Your task to perform on an android device: Find coffee shops on Maps Image 0: 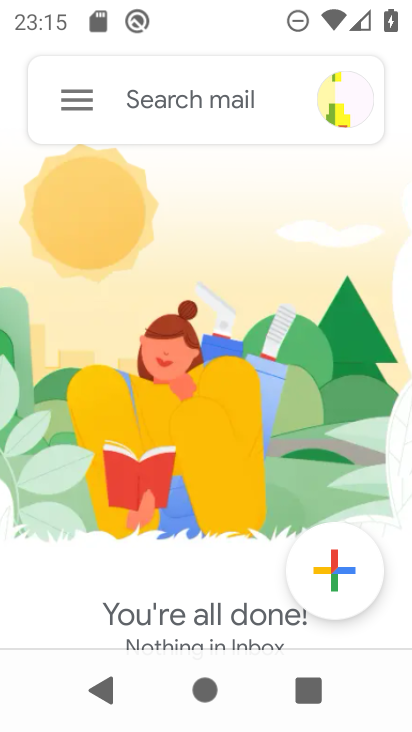
Step 0: click (73, 93)
Your task to perform on an android device: Find coffee shops on Maps Image 1: 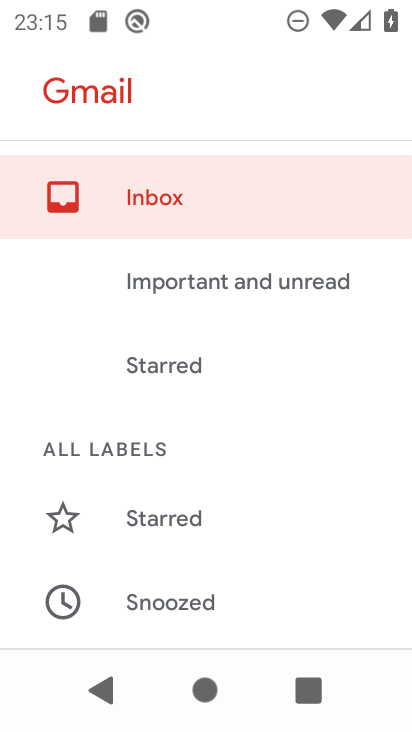
Step 1: press home button
Your task to perform on an android device: Find coffee shops on Maps Image 2: 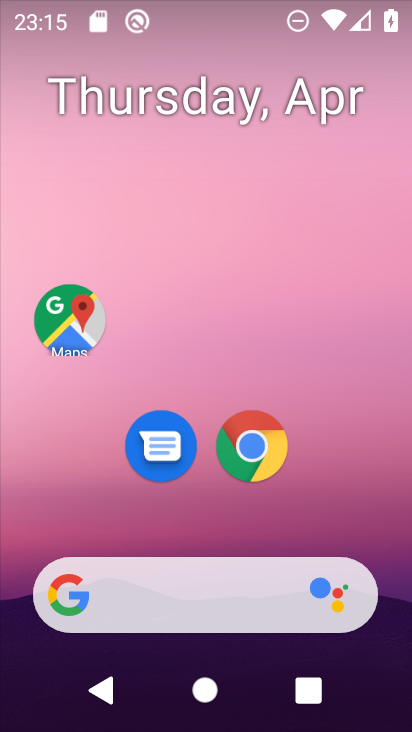
Step 2: click (62, 308)
Your task to perform on an android device: Find coffee shops on Maps Image 3: 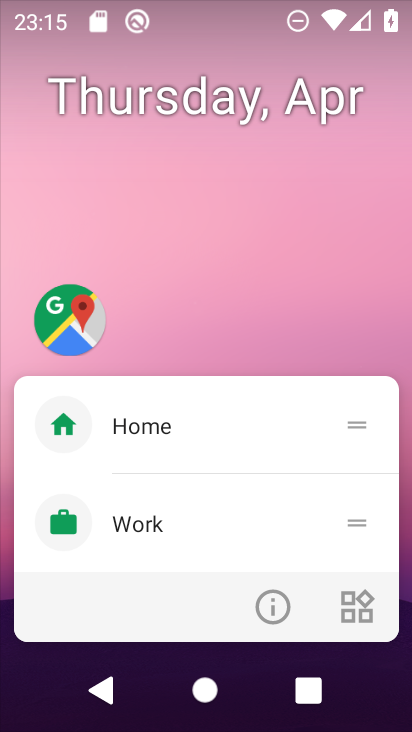
Step 3: click (274, 592)
Your task to perform on an android device: Find coffee shops on Maps Image 4: 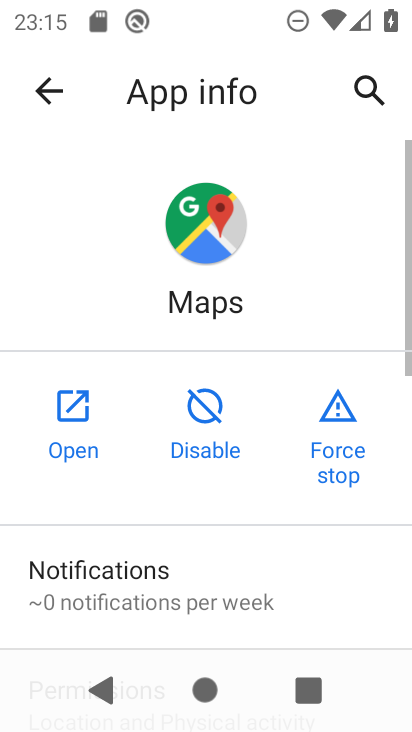
Step 4: click (64, 448)
Your task to perform on an android device: Find coffee shops on Maps Image 5: 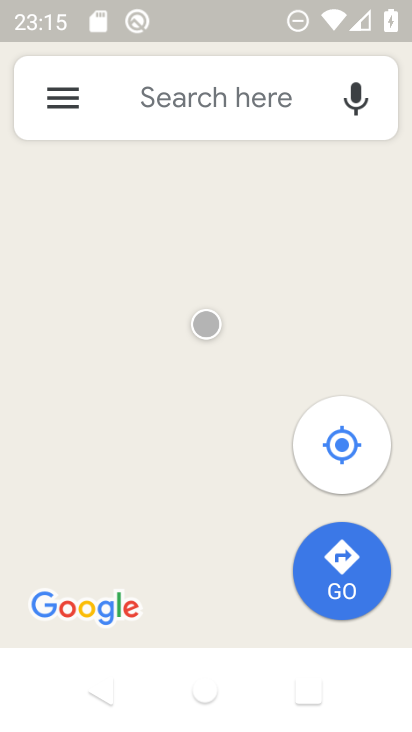
Step 5: click (179, 91)
Your task to perform on an android device: Find coffee shops on Maps Image 6: 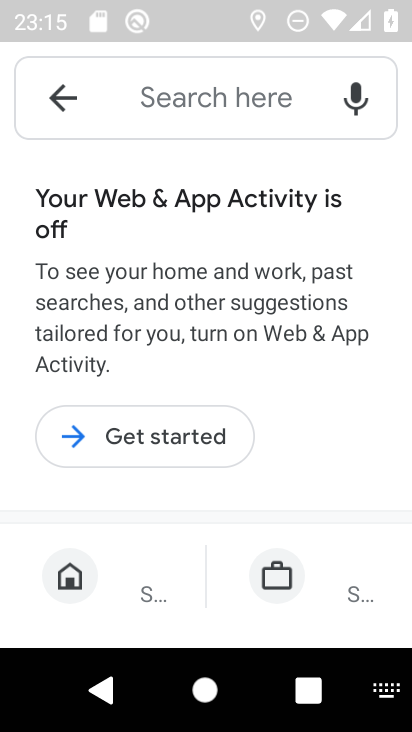
Step 6: click (173, 96)
Your task to perform on an android device: Find coffee shops on Maps Image 7: 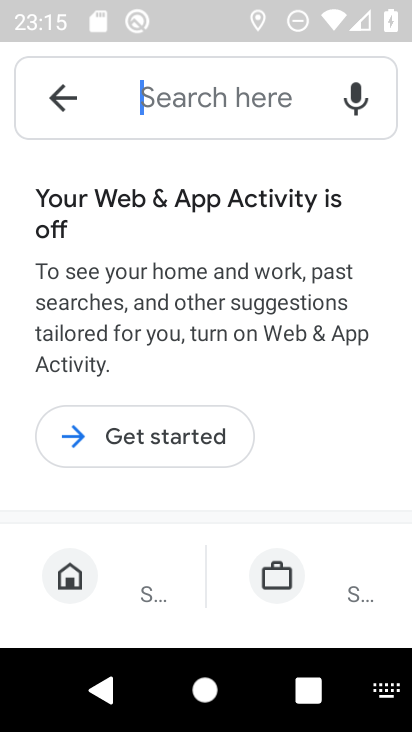
Step 7: drag from (224, 468) to (277, 100)
Your task to perform on an android device: Find coffee shops on Maps Image 8: 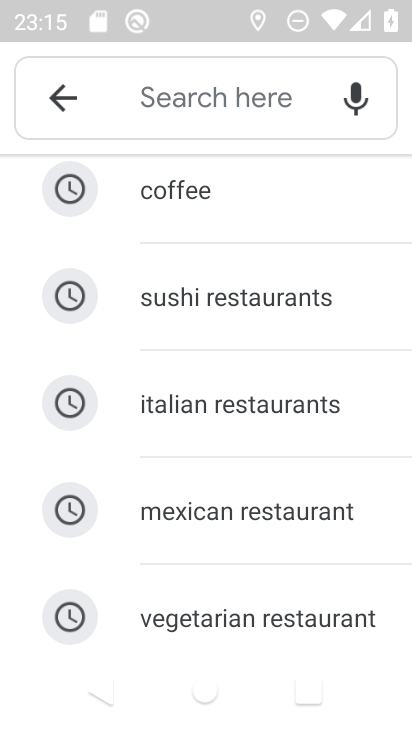
Step 8: drag from (220, 260) to (203, 473)
Your task to perform on an android device: Find coffee shops on Maps Image 9: 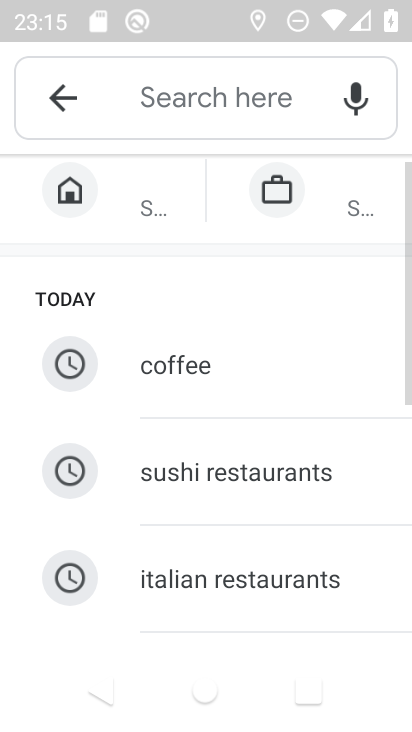
Step 9: click (206, 380)
Your task to perform on an android device: Find coffee shops on Maps Image 10: 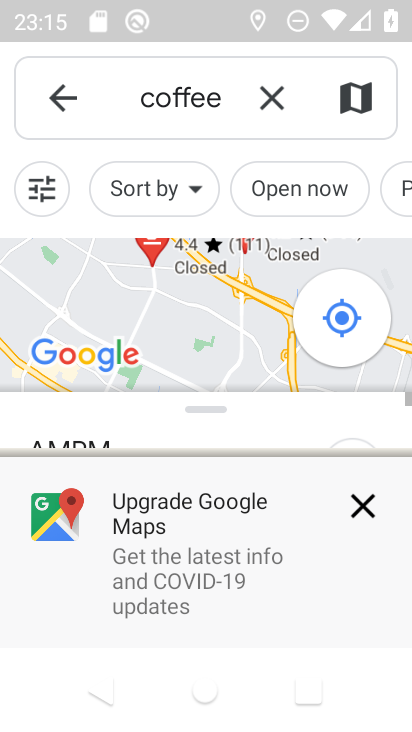
Step 10: drag from (247, 525) to (315, 230)
Your task to perform on an android device: Find coffee shops on Maps Image 11: 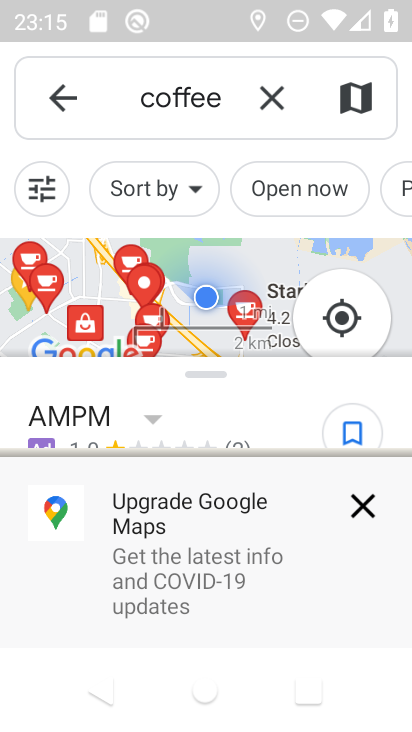
Step 11: click (368, 502)
Your task to perform on an android device: Find coffee shops on Maps Image 12: 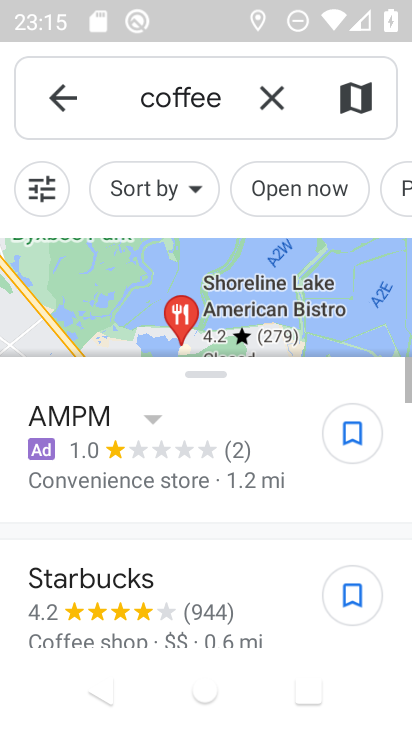
Step 12: task complete